Your task to perform on an android device: change keyboard looks Image 0: 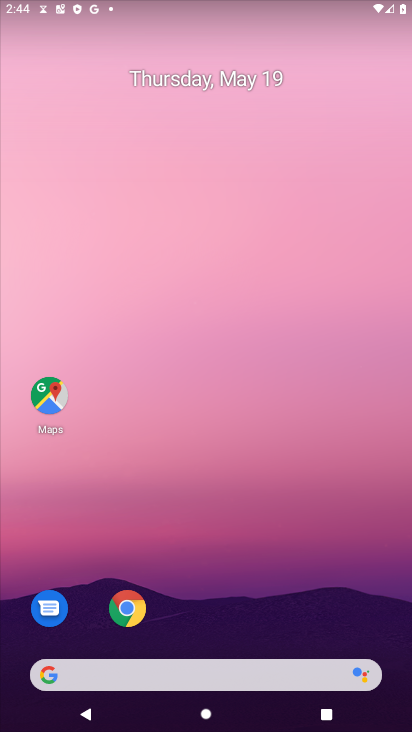
Step 0: drag from (243, 575) to (226, 158)
Your task to perform on an android device: change keyboard looks Image 1: 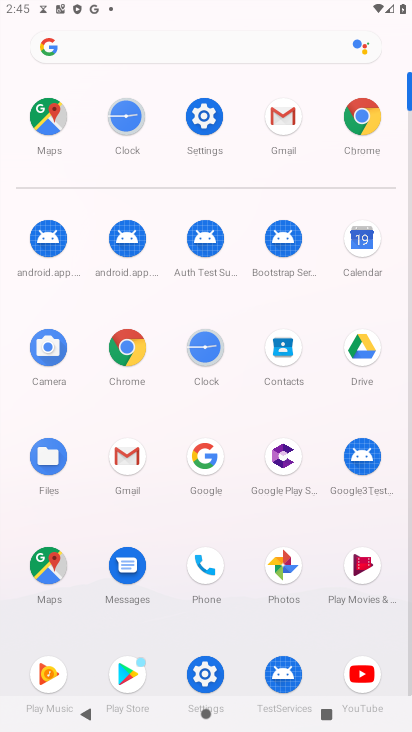
Step 1: click (202, 129)
Your task to perform on an android device: change keyboard looks Image 2: 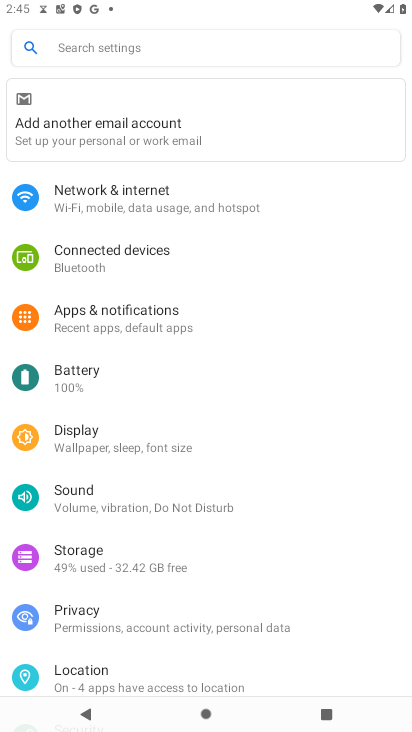
Step 2: drag from (175, 670) to (163, 236)
Your task to perform on an android device: change keyboard looks Image 3: 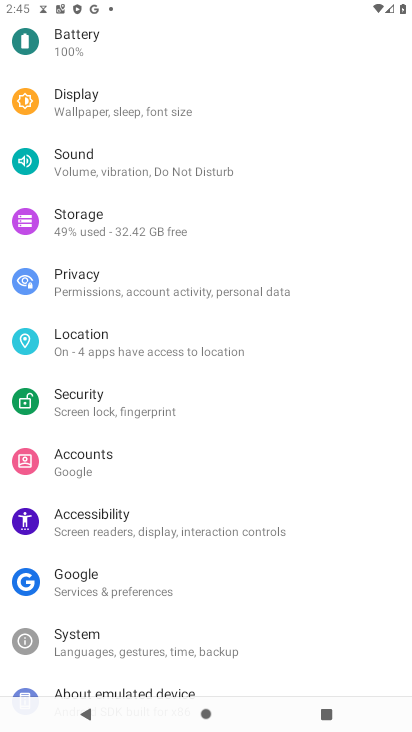
Step 3: click (191, 645)
Your task to perform on an android device: change keyboard looks Image 4: 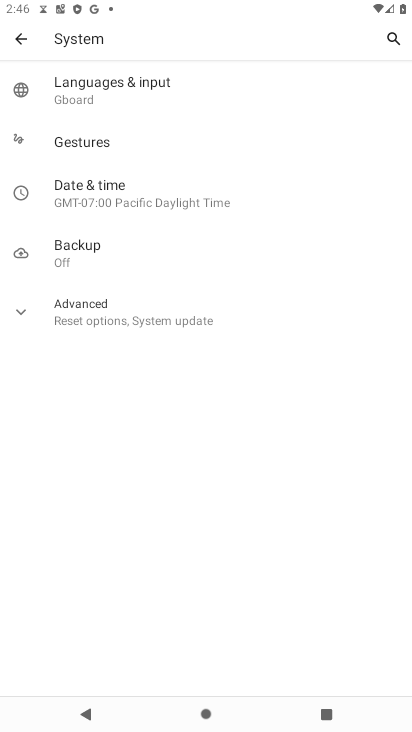
Step 4: click (219, 83)
Your task to perform on an android device: change keyboard looks Image 5: 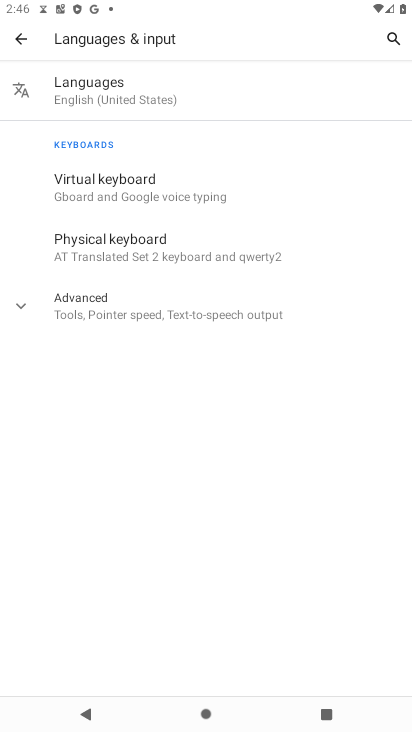
Step 5: click (192, 195)
Your task to perform on an android device: change keyboard looks Image 6: 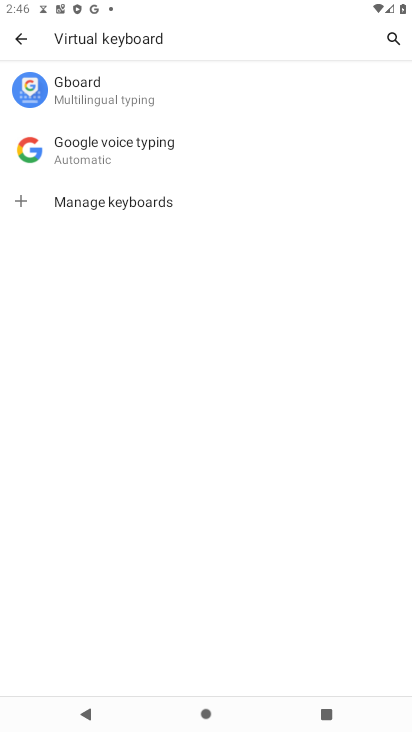
Step 6: click (204, 76)
Your task to perform on an android device: change keyboard looks Image 7: 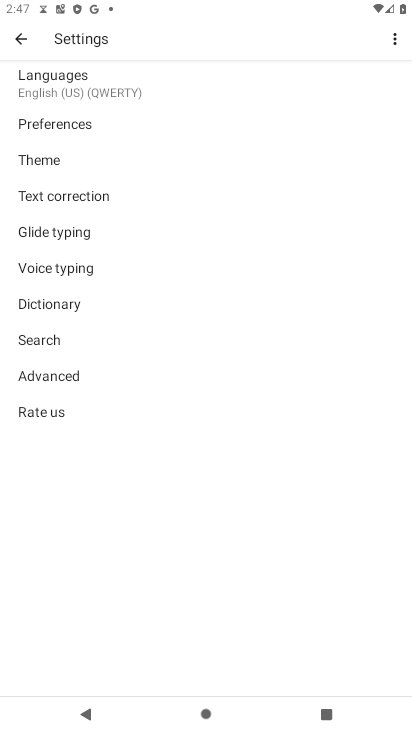
Step 7: click (154, 151)
Your task to perform on an android device: change keyboard looks Image 8: 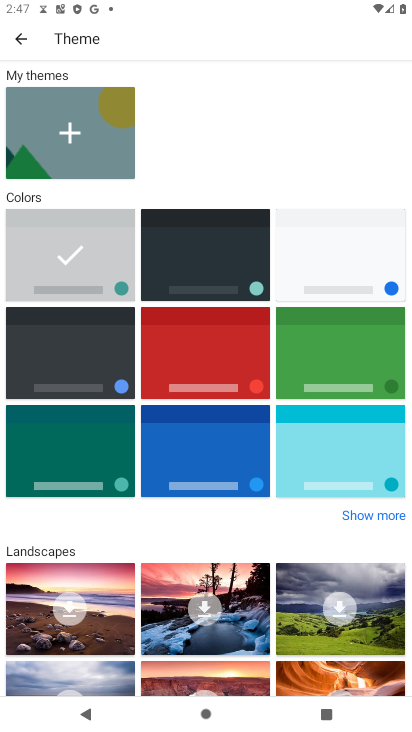
Step 8: click (175, 241)
Your task to perform on an android device: change keyboard looks Image 9: 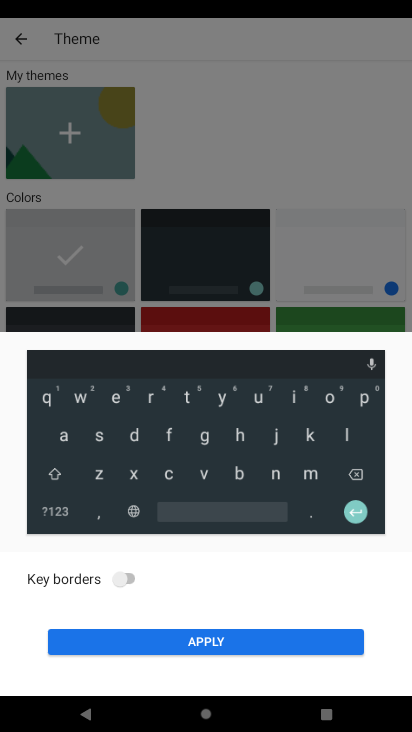
Step 9: click (228, 641)
Your task to perform on an android device: change keyboard looks Image 10: 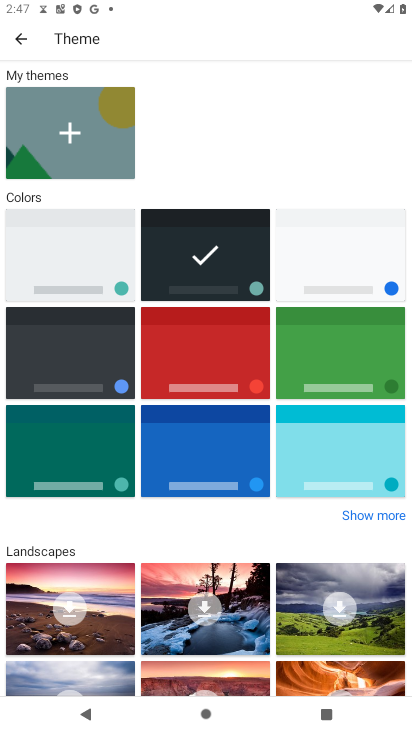
Step 10: task complete